Your task to perform on an android device: turn on improve location accuracy Image 0: 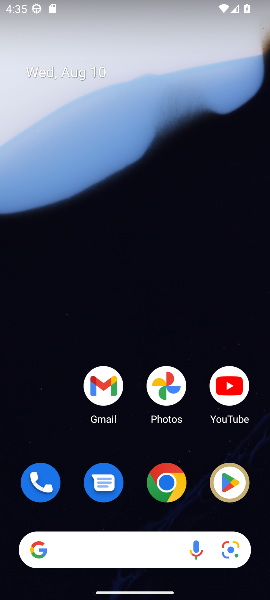
Step 0: drag from (51, 401) to (121, 25)
Your task to perform on an android device: turn on improve location accuracy Image 1: 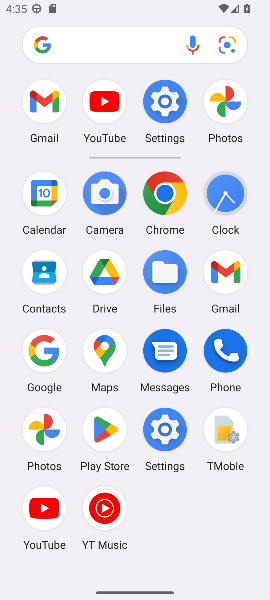
Step 1: click (170, 91)
Your task to perform on an android device: turn on improve location accuracy Image 2: 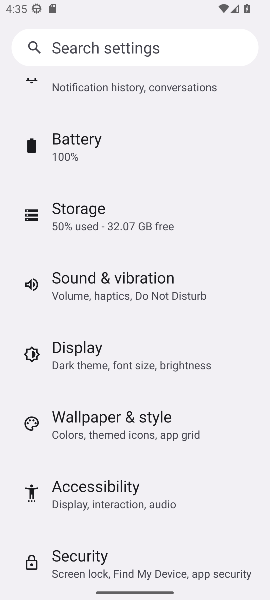
Step 2: drag from (129, 455) to (177, 5)
Your task to perform on an android device: turn on improve location accuracy Image 3: 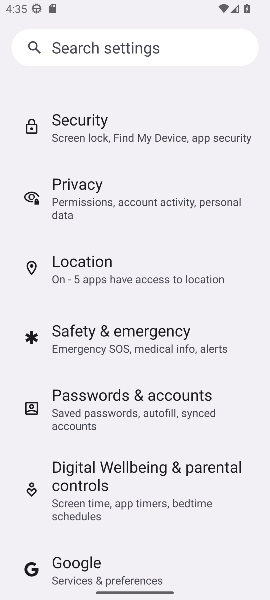
Step 3: click (158, 275)
Your task to perform on an android device: turn on improve location accuracy Image 4: 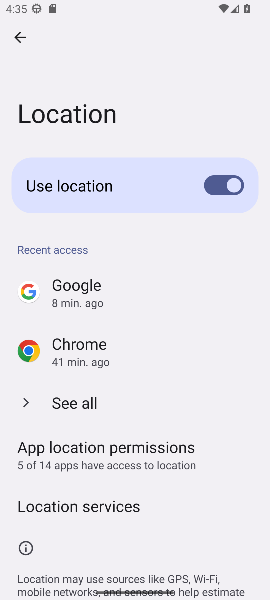
Step 4: drag from (163, 401) to (210, 71)
Your task to perform on an android device: turn on improve location accuracy Image 5: 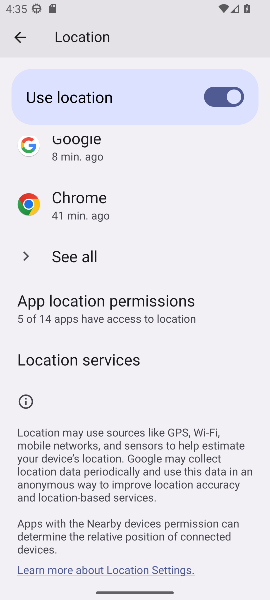
Step 5: click (125, 356)
Your task to perform on an android device: turn on improve location accuracy Image 6: 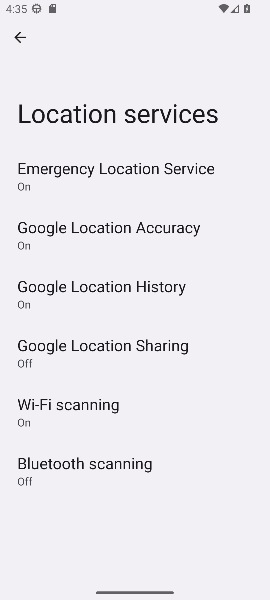
Step 6: click (146, 230)
Your task to perform on an android device: turn on improve location accuracy Image 7: 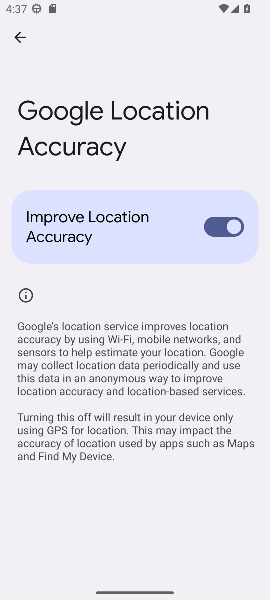
Step 7: task complete